Your task to perform on an android device: Open the phone app and click the voicemail tab. Image 0: 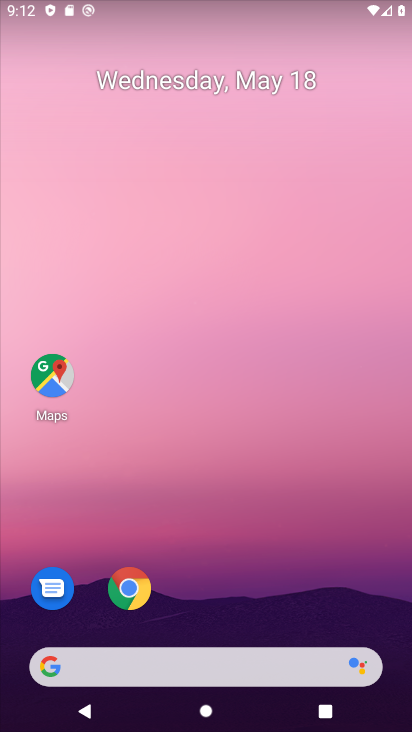
Step 0: drag from (244, 671) to (400, 242)
Your task to perform on an android device: Open the phone app and click the voicemail tab. Image 1: 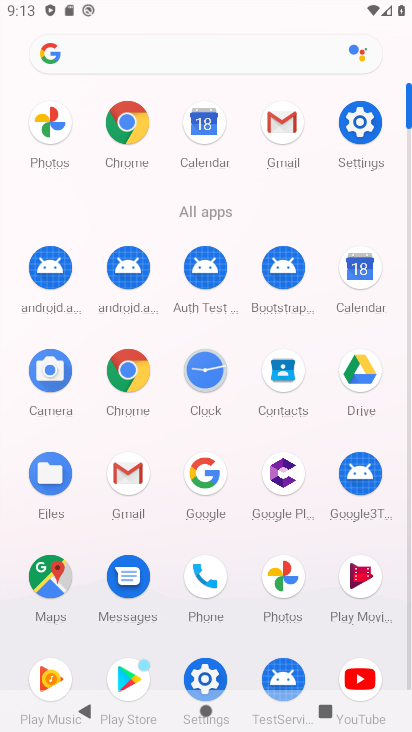
Step 1: click (189, 589)
Your task to perform on an android device: Open the phone app and click the voicemail tab. Image 2: 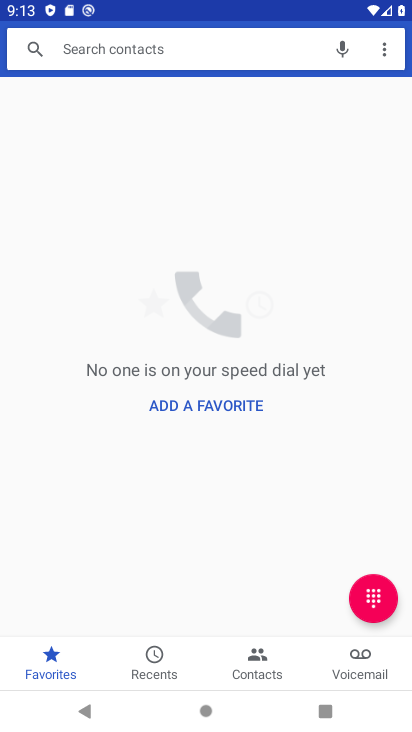
Step 2: click (350, 672)
Your task to perform on an android device: Open the phone app and click the voicemail tab. Image 3: 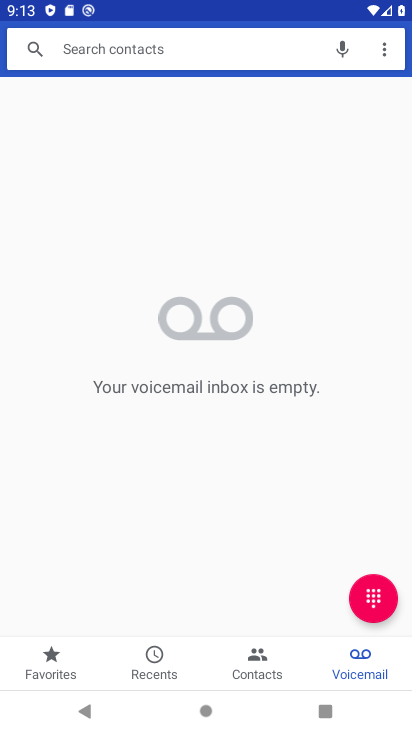
Step 3: task complete